Your task to perform on an android device: Open calendar and show me the fourth week of next month Image 0: 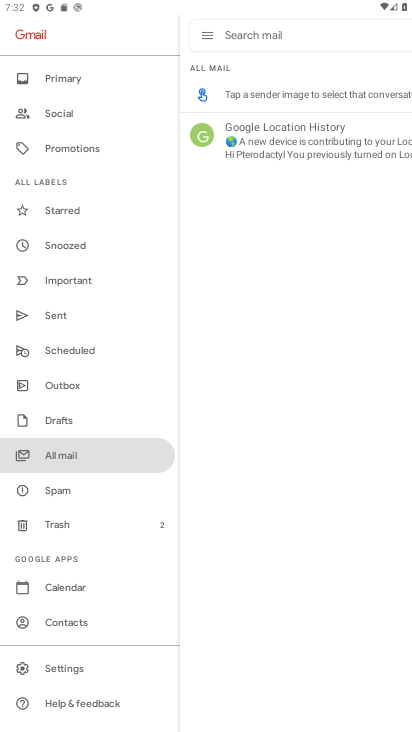
Step 0: press home button
Your task to perform on an android device: Open calendar and show me the fourth week of next month Image 1: 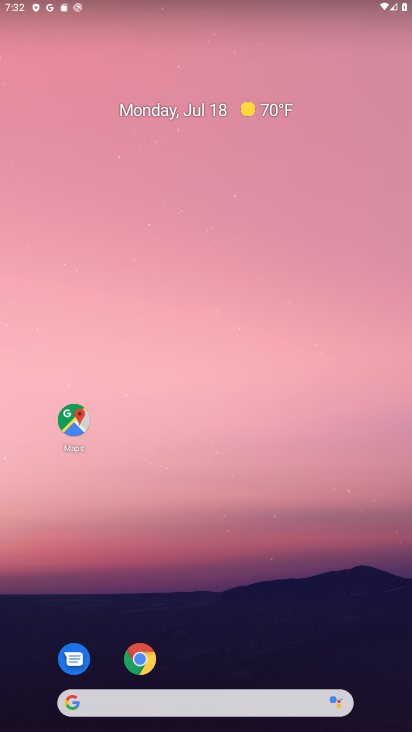
Step 1: drag from (195, 694) to (226, 157)
Your task to perform on an android device: Open calendar and show me the fourth week of next month Image 2: 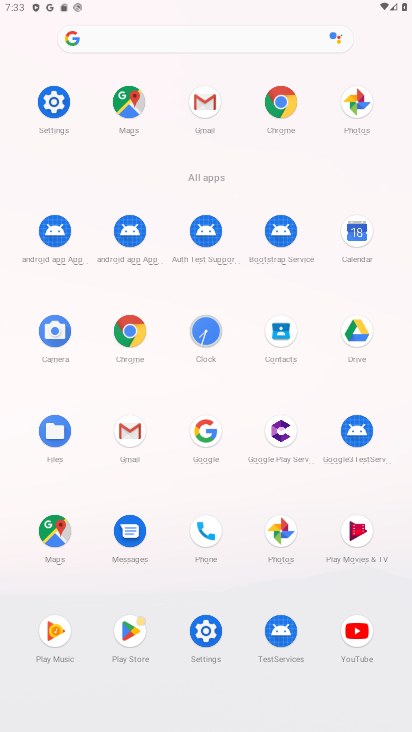
Step 2: click (355, 233)
Your task to perform on an android device: Open calendar and show me the fourth week of next month Image 3: 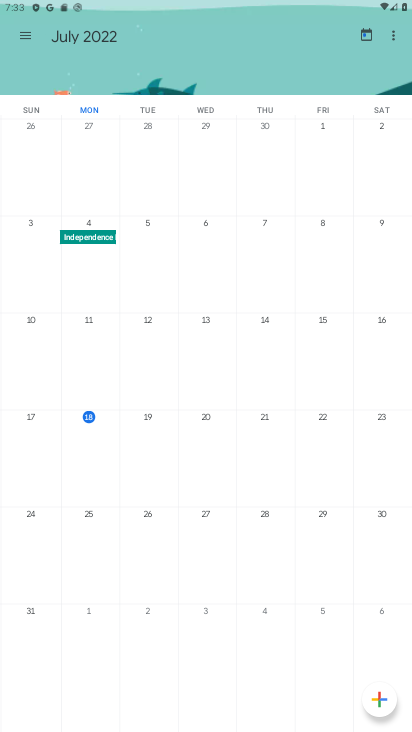
Step 3: drag from (373, 471) to (0, 558)
Your task to perform on an android device: Open calendar and show me the fourth week of next month Image 4: 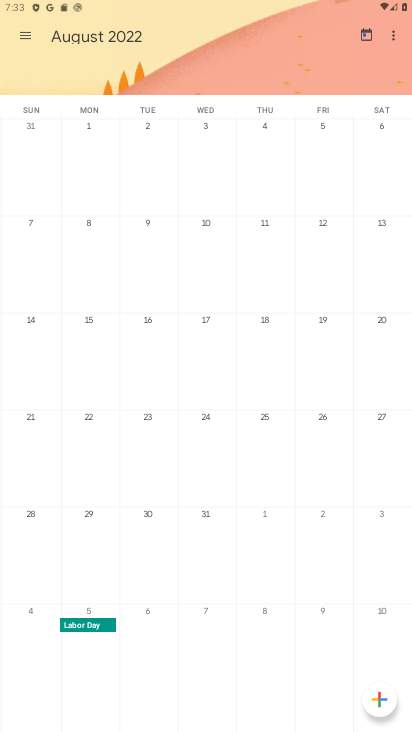
Step 4: click (90, 458)
Your task to perform on an android device: Open calendar and show me the fourth week of next month Image 5: 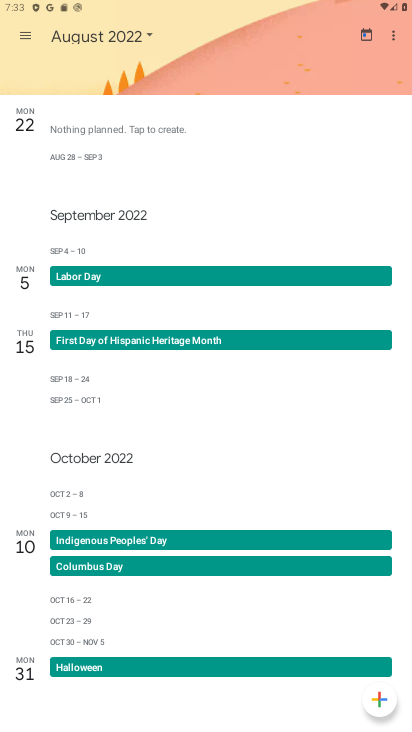
Step 5: click (30, 31)
Your task to perform on an android device: Open calendar and show me the fourth week of next month Image 6: 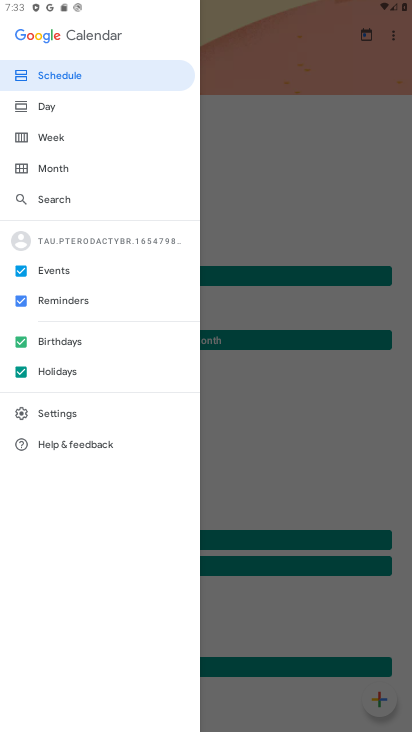
Step 6: click (63, 145)
Your task to perform on an android device: Open calendar and show me the fourth week of next month Image 7: 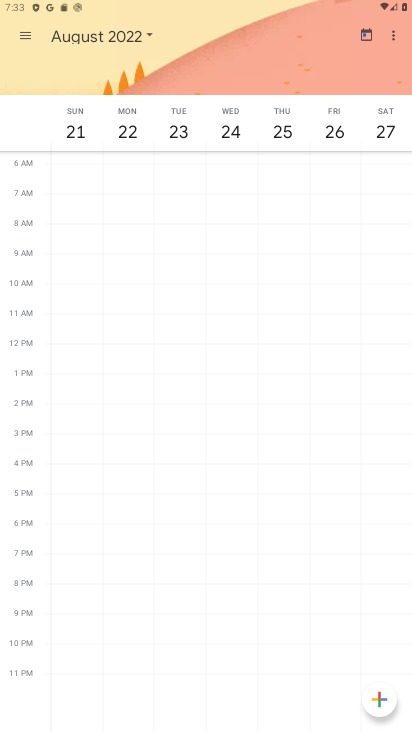
Step 7: task complete